Your task to perform on an android device: Open privacy settings Image 0: 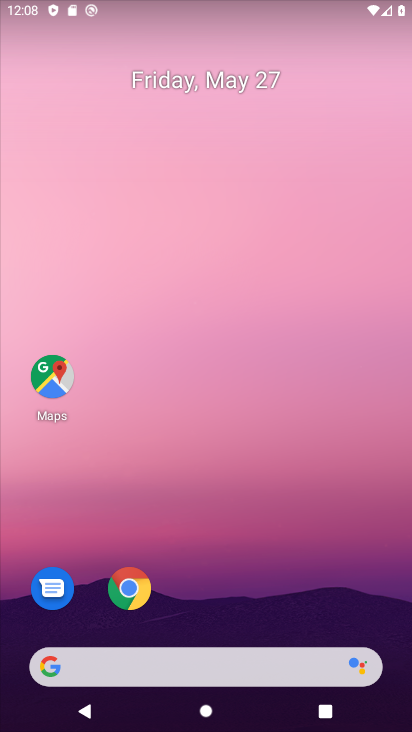
Step 0: press home button
Your task to perform on an android device: Open privacy settings Image 1: 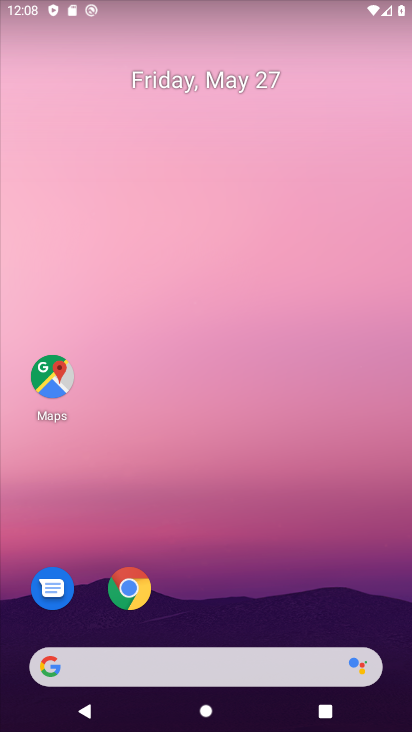
Step 1: drag from (217, 617) to (230, 35)
Your task to perform on an android device: Open privacy settings Image 2: 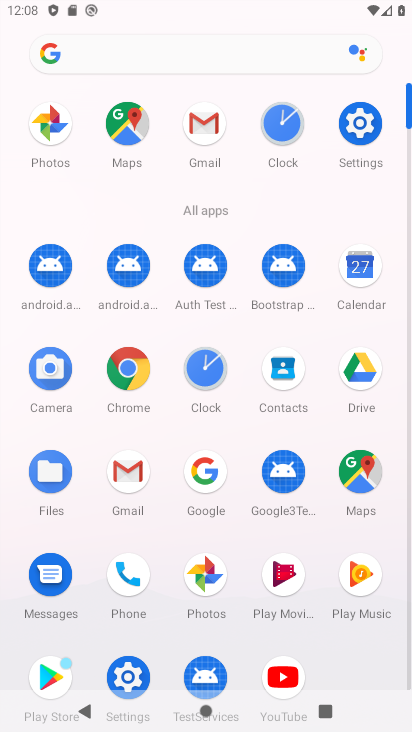
Step 2: click (357, 121)
Your task to perform on an android device: Open privacy settings Image 3: 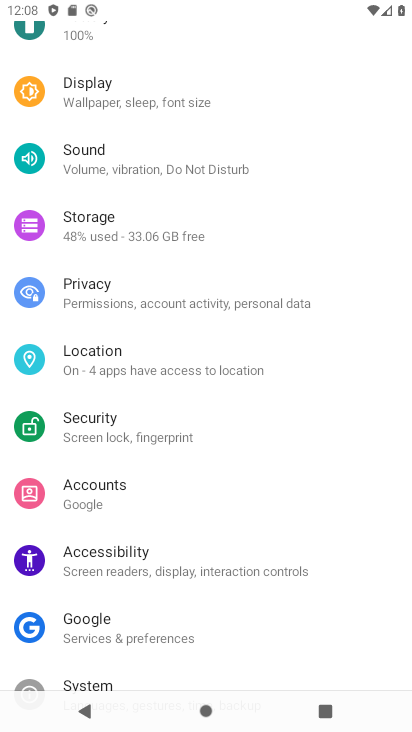
Step 3: click (101, 290)
Your task to perform on an android device: Open privacy settings Image 4: 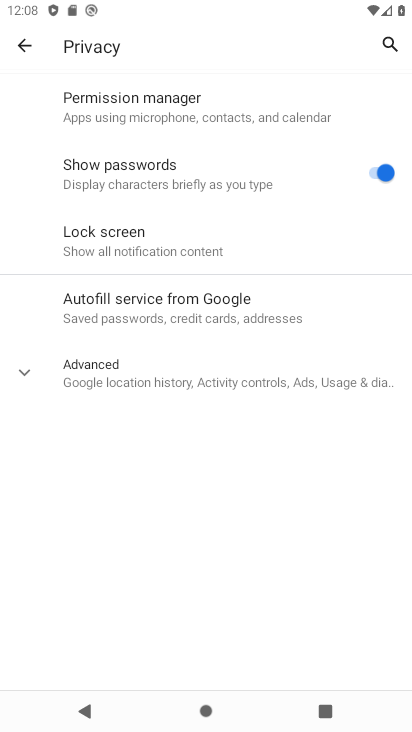
Step 4: click (34, 367)
Your task to perform on an android device: Open privacy settings Image 5: 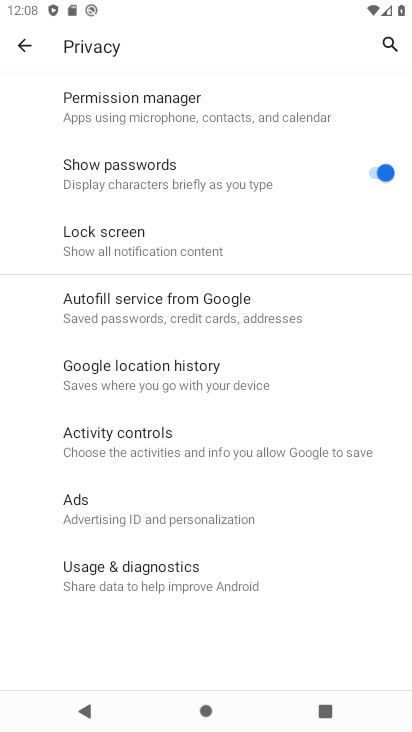
Step 5: task complete